Your task to perform on an android device: Search for razer deathadder on walmart, select the first entry, add it to the cart, then select checkout. Image 0: 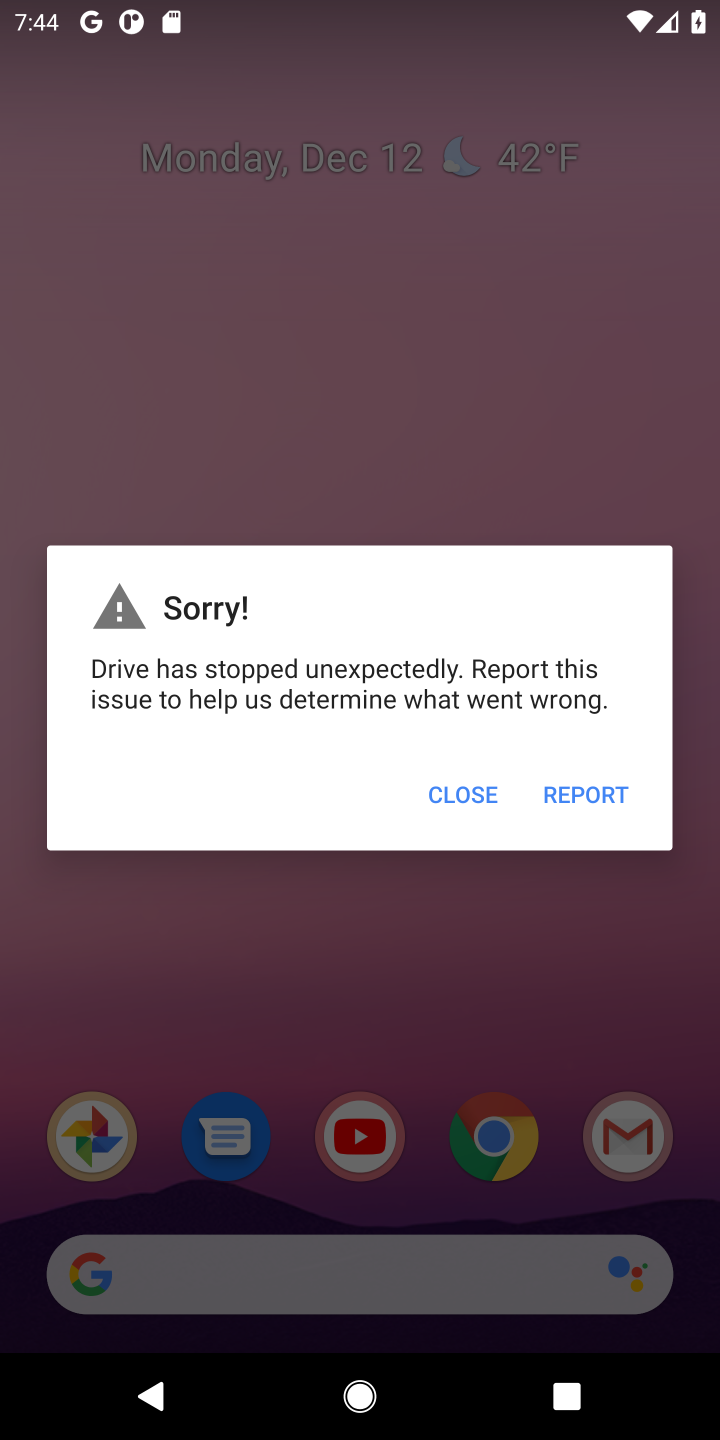
Step 0: press home button
Your task to perform on an android device: Search for razer deathadder on walmart, select the first entry, add it to the cart, then select checkout. Image 1: 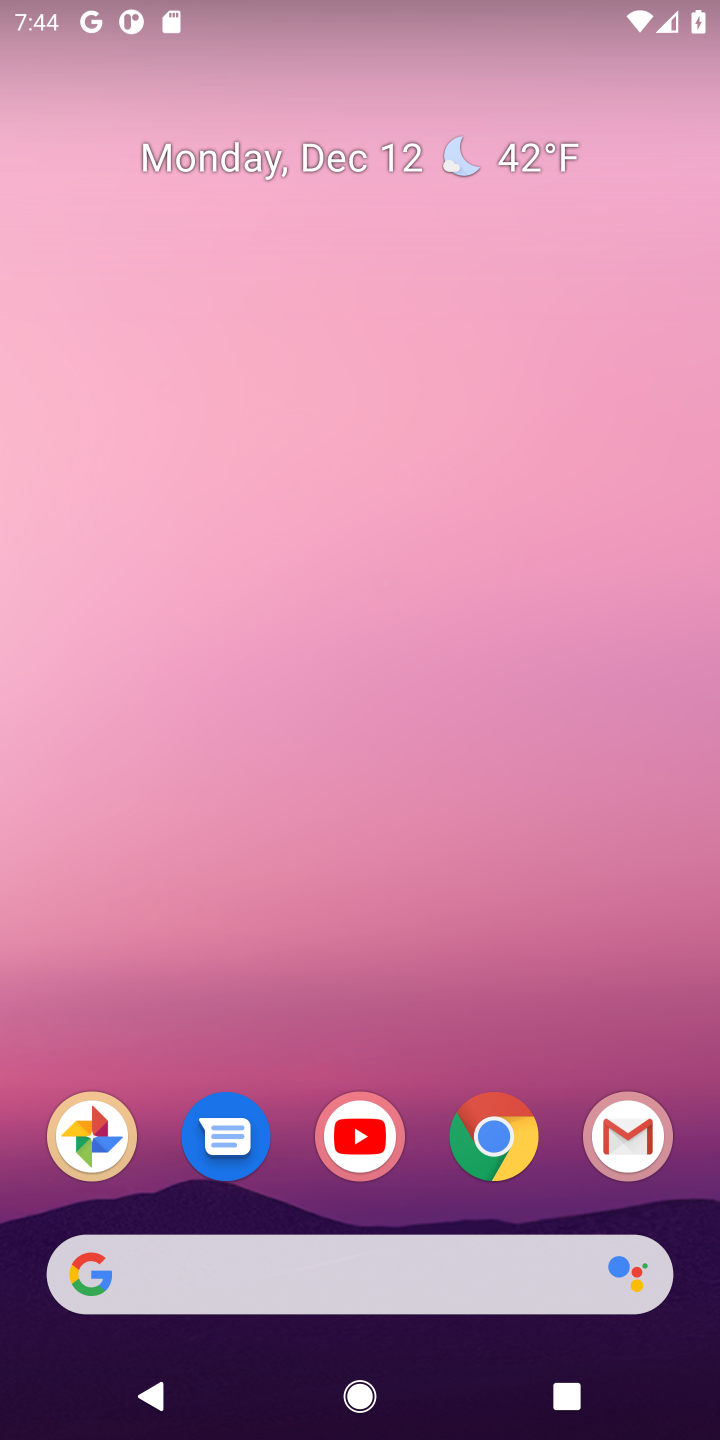
Step 1: click (487, 1155)
Your task to perform on an android device: Search for razer deathadder on walmart, select the first entry, add it to the cart, then select checkout. Image 2: 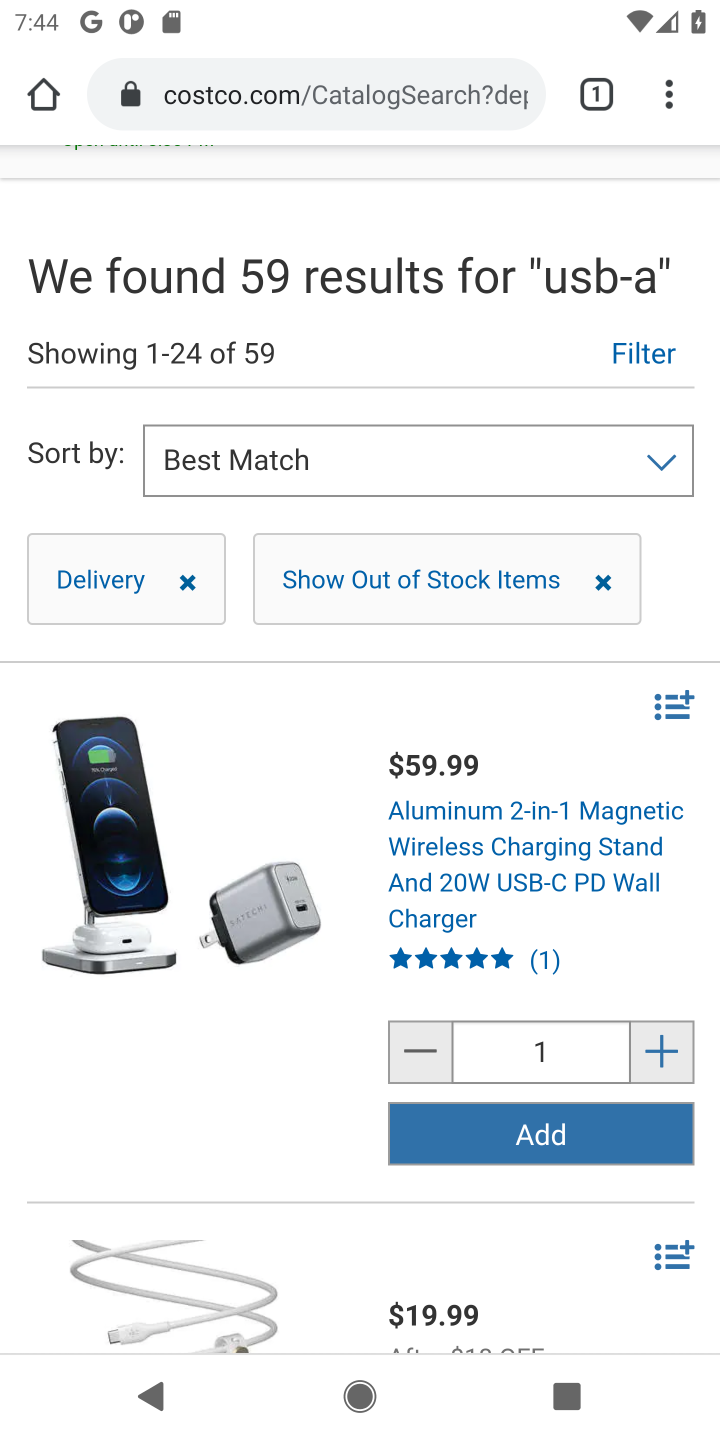
Step 2: click (211, 86)
Your task to perform on an android device: Search for razer deathadder on walmart, select the first entry, add it to the cart, then select checkout. Image 3: 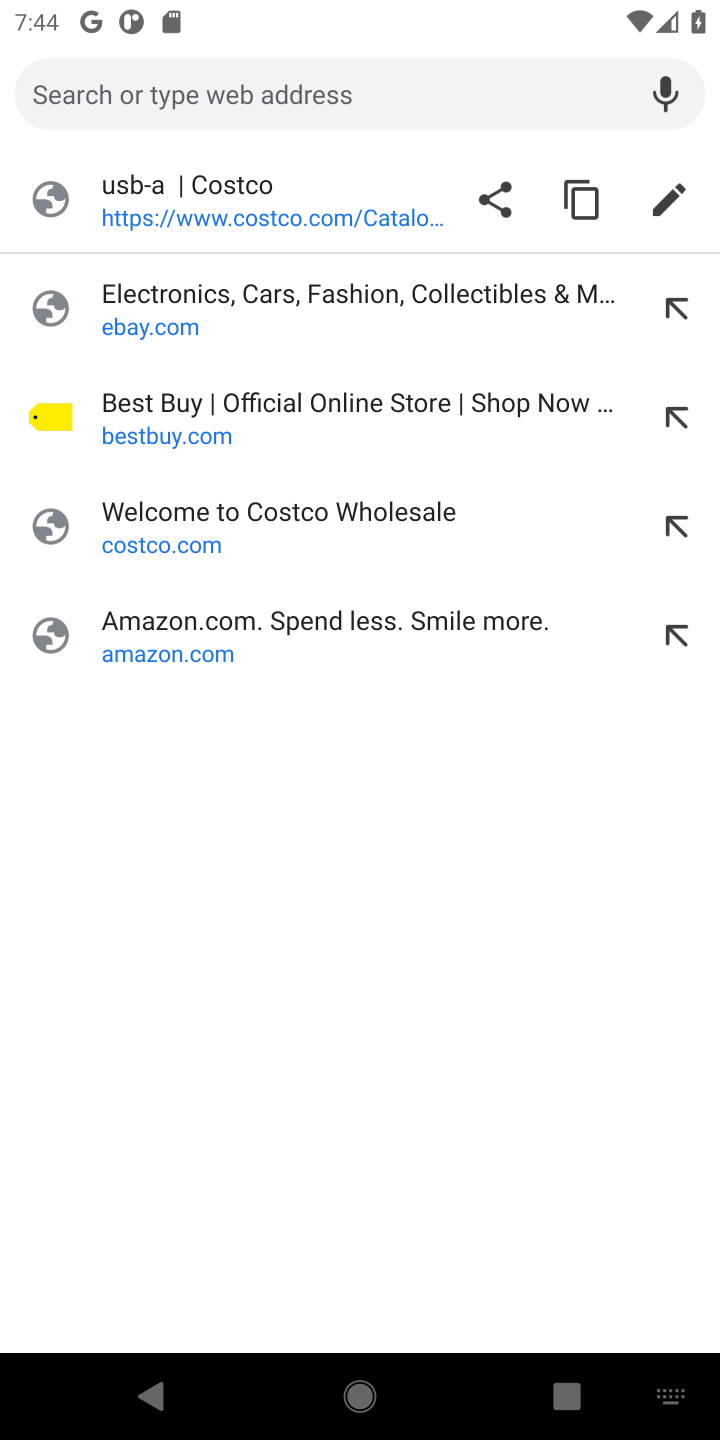
Step 3: type "walmart.com"
Your task to perform on an android device: Search for razer deathadder on walmart, select the first entry, add it to the cart, then select checkout. Image 4: 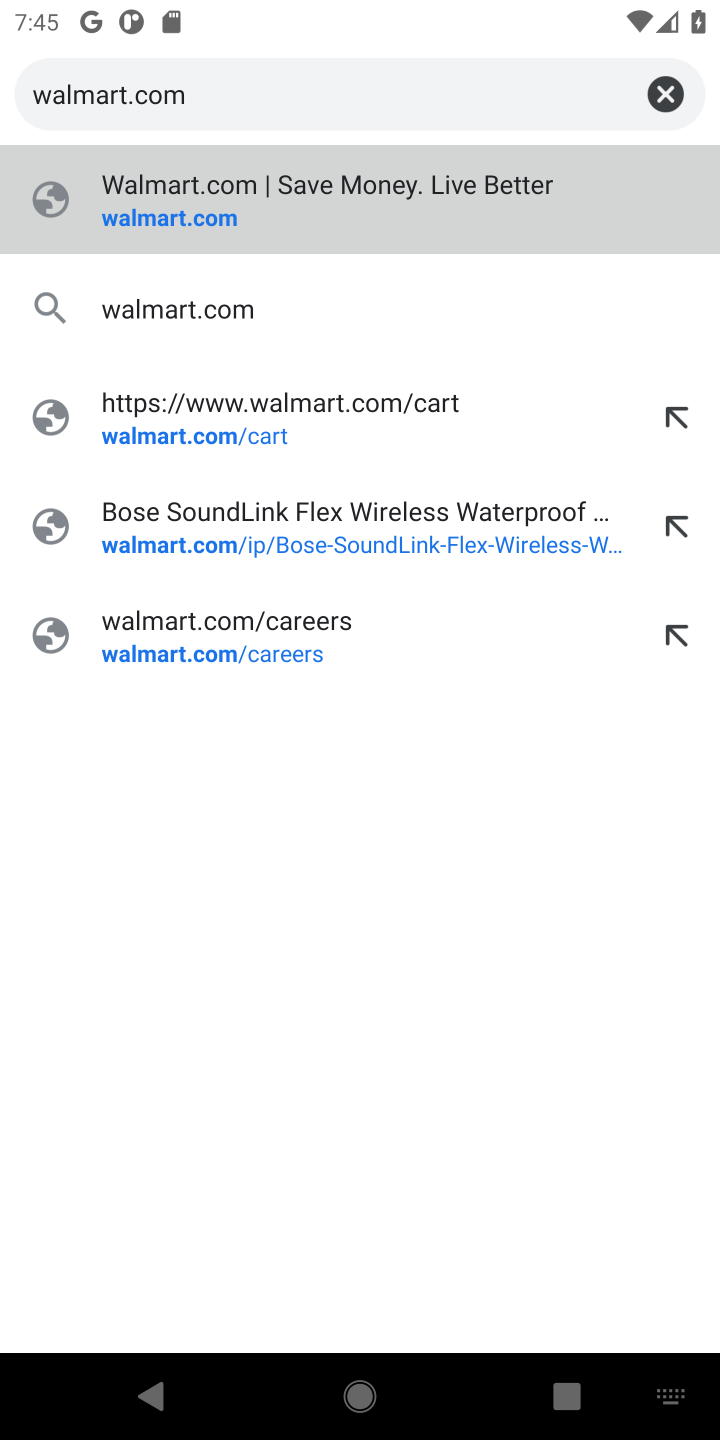
Step 4: click (149, 218)
Your task to perform on an android device: Search for razer deathadder on walmart, select the first entry, add it to the cart, then select checkout. Image 5: 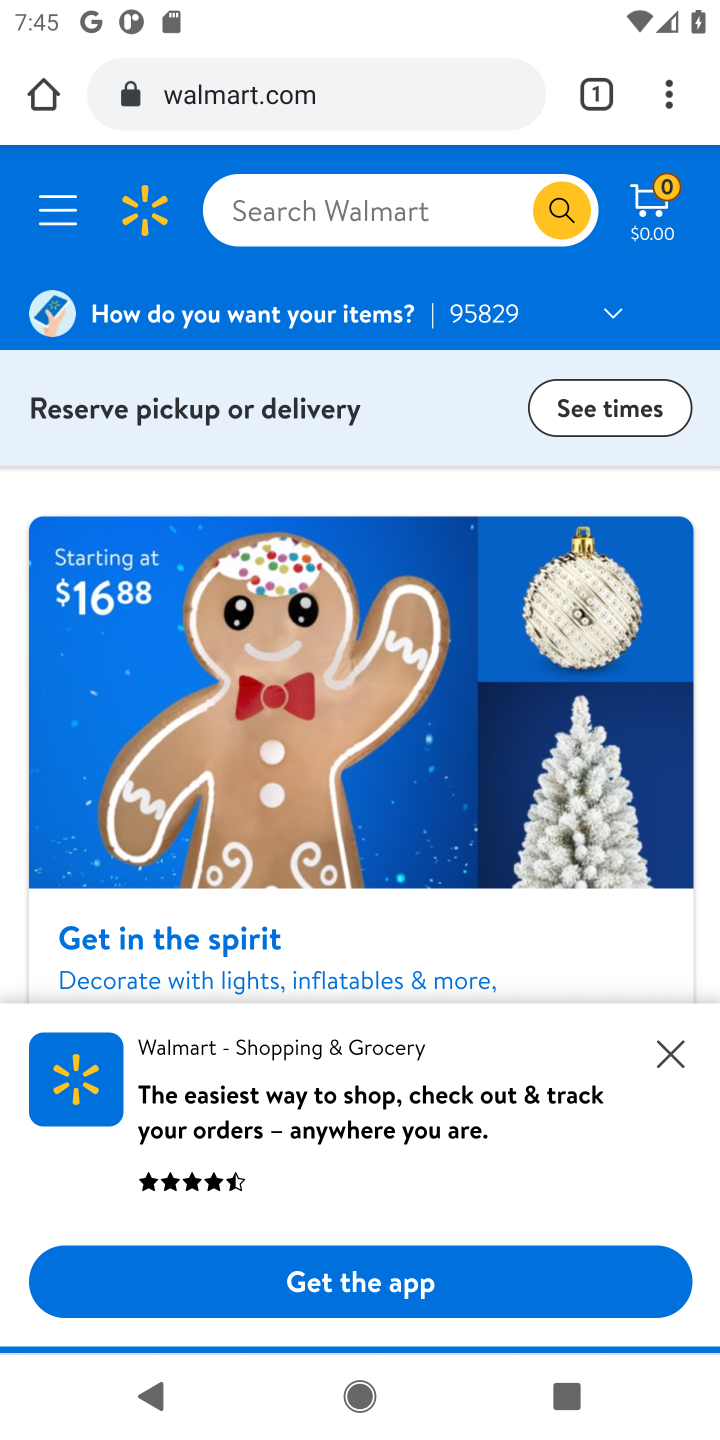
Step 5: click (271, 210)
Your task to perform on an android device: Search for razer deathadder on walmart, select the first entry, add it to the cart, then select checkout. Image 6: 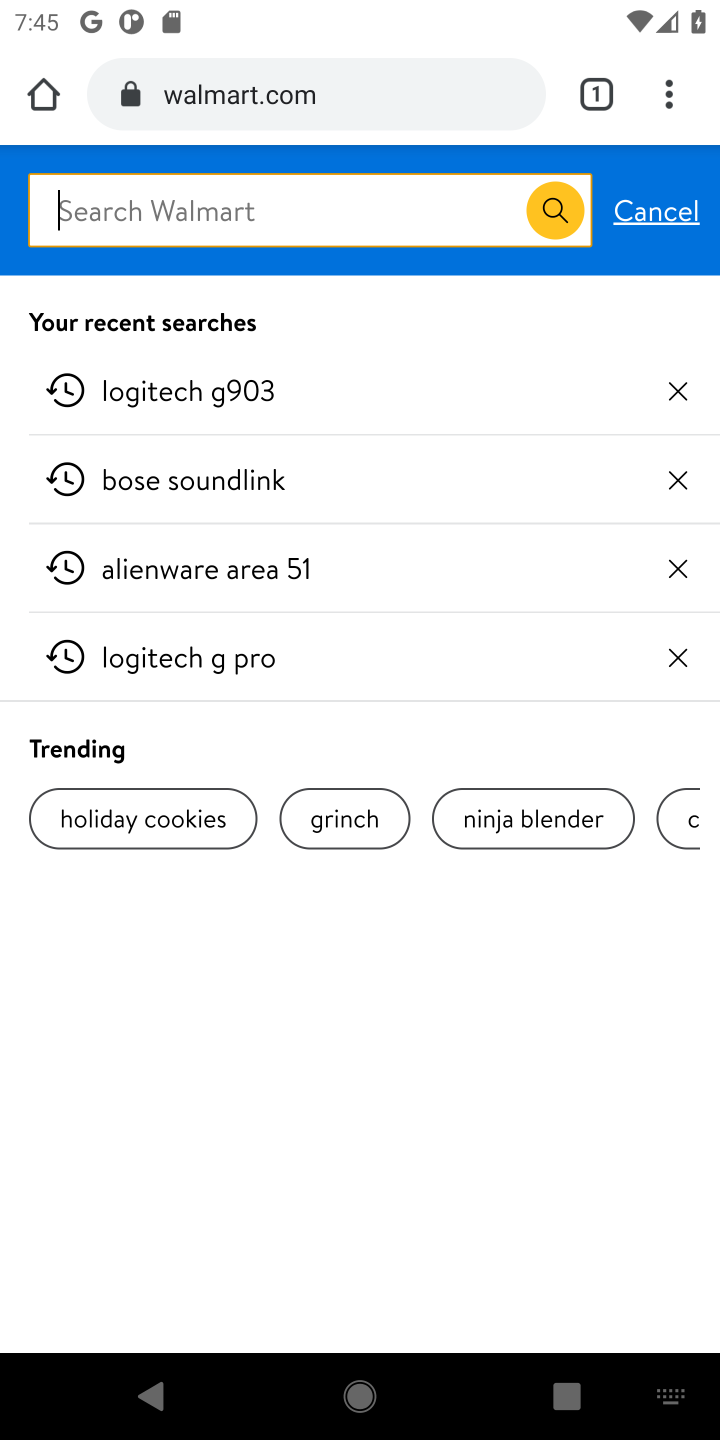
Step 6: type "razer deathadder "
Your task to perform on an android device: Search for razer deathadder on walmart, select the first entry, add it to the cart, then select checkout. Image 7: 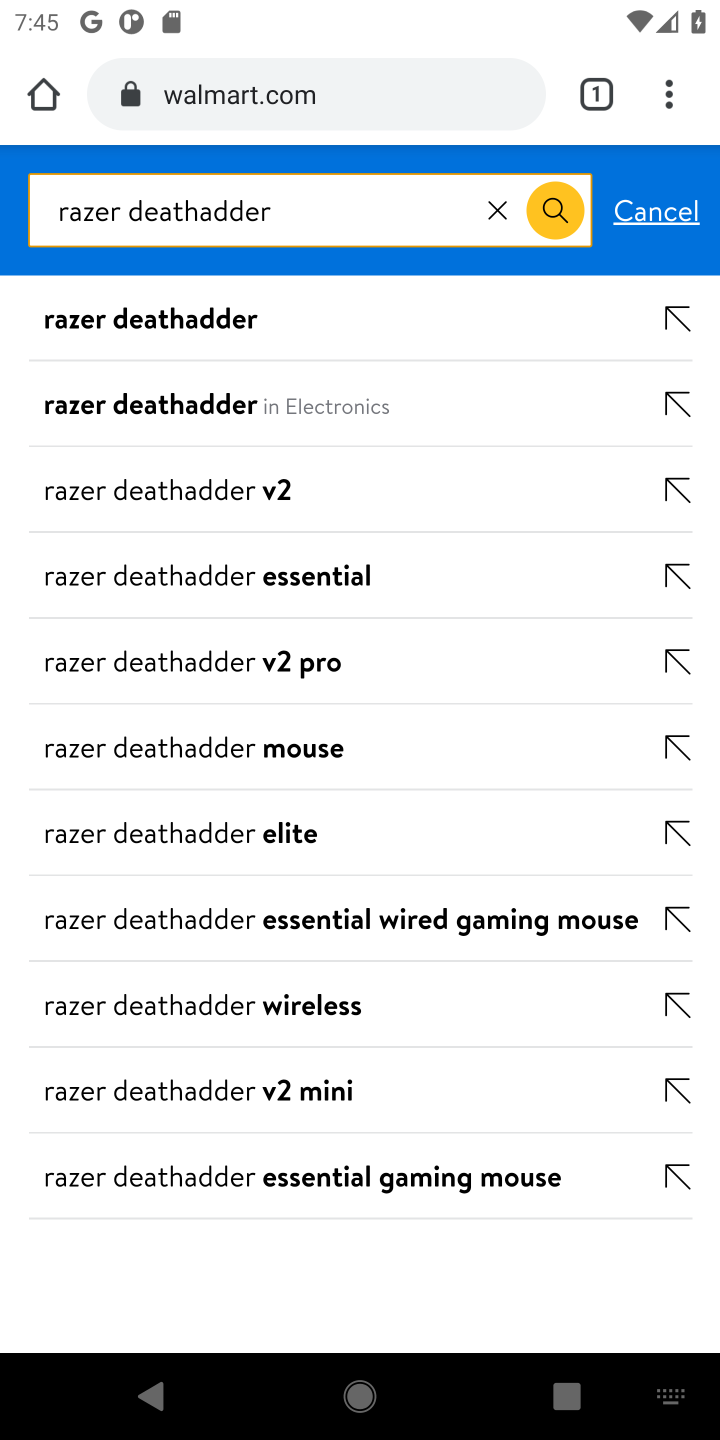
Step 7: click (195, 338)
Your task to perform on an android device: Search for razer deathadder on walmart, select the first entry, add it to the cart, then select checkout. Image 8: 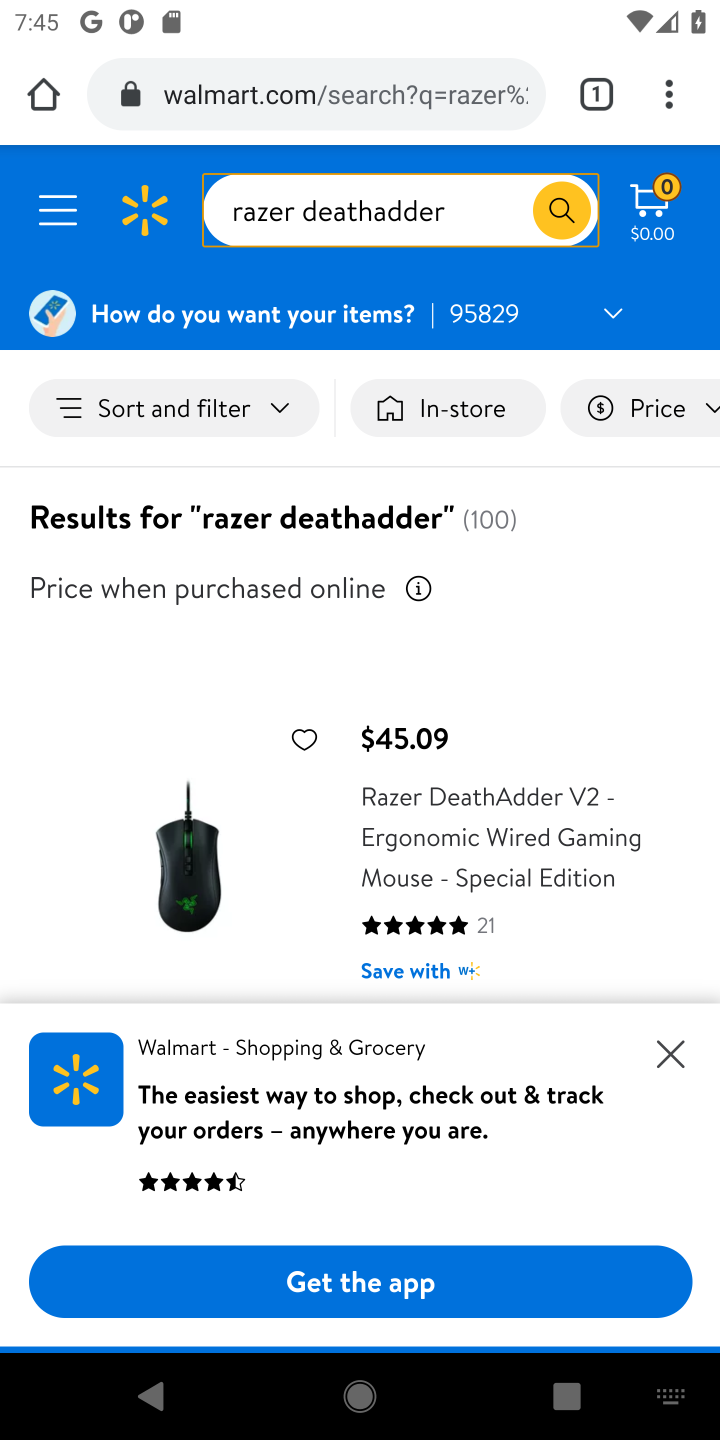
Step 8: drag from (311, 871) to (316, 446)
Your task to perform on an android device: Search for razer deathadder on walmart, select the first entry, add it to the cart, then select checkout. Image 9: 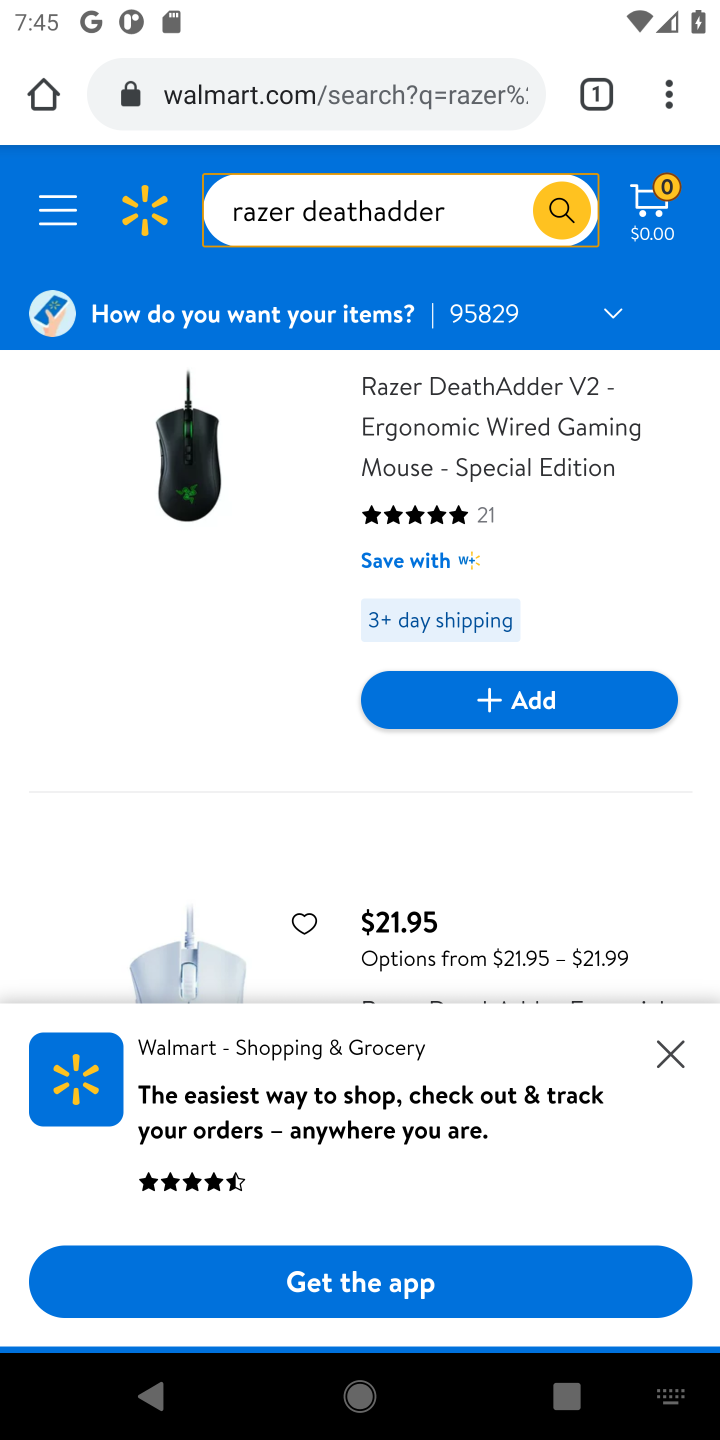
Step 9: click (540, 701)
Your task to perform on an android device: Search for razer deathadder on walmart, select the first entry, add it to the cart, then select checkout. Image 10: 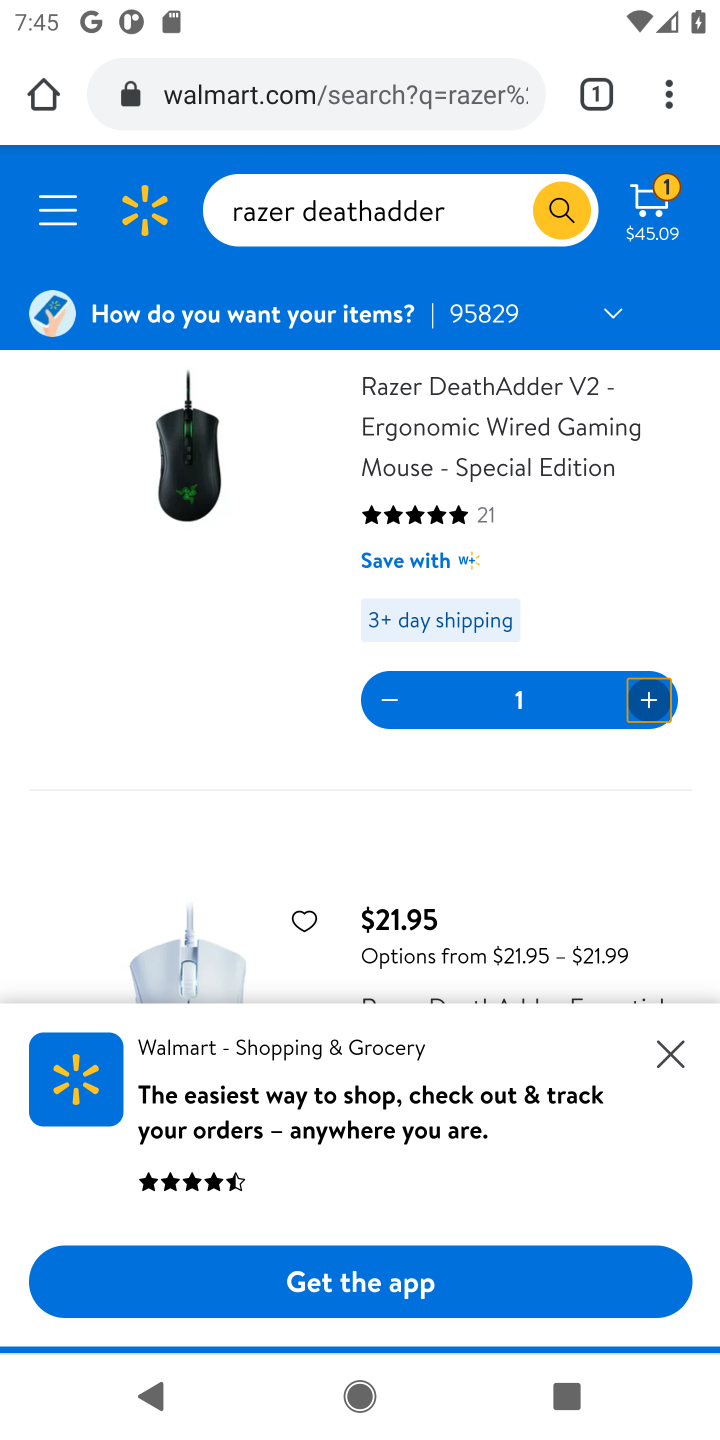
Step 10: click (656, 224)
Your task to perform on an android device: Search for razer deathadder on walmart, select the first entry, add it to the cart, then select checkout. Image 11: 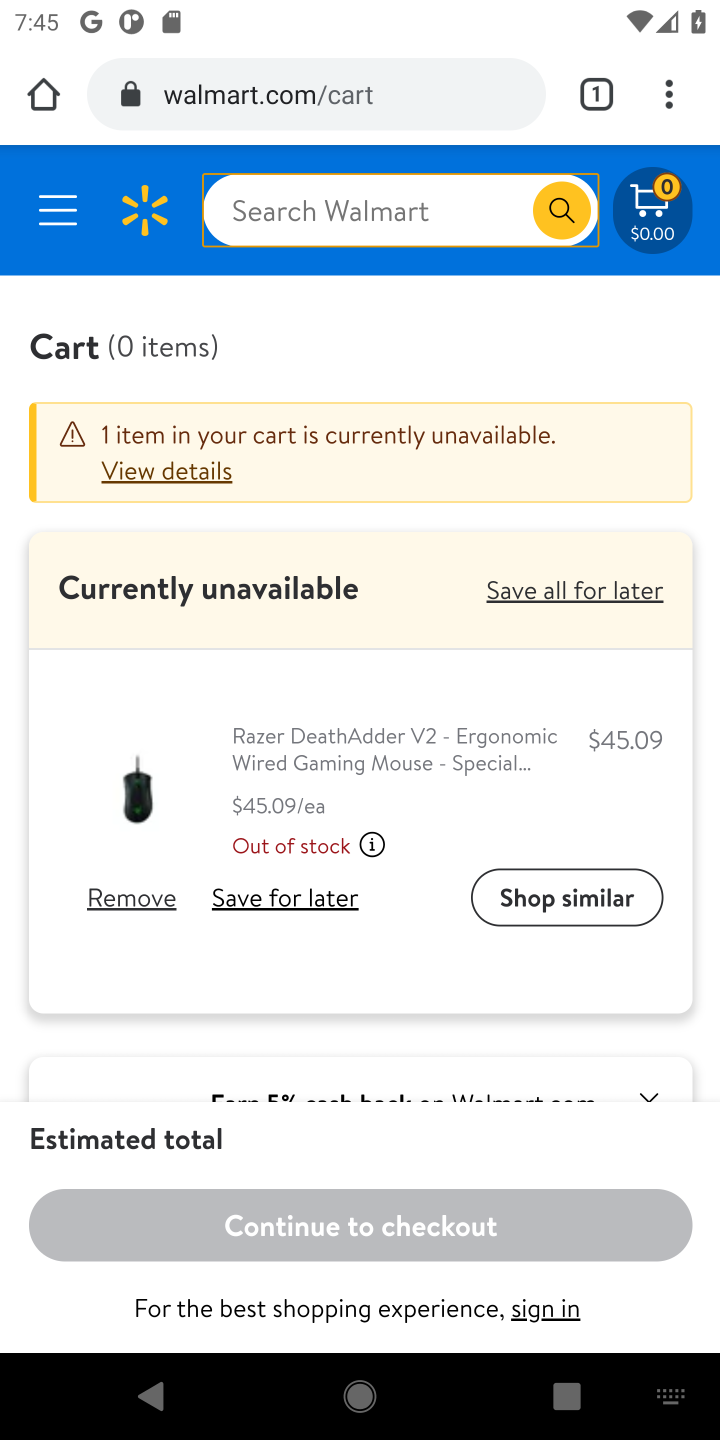
Step 11: click (316, 219)
Your task to perform on an android device: Search for razer deathadder on walmart, select the first entry, add it to the cart, then select checkout. Image 12: 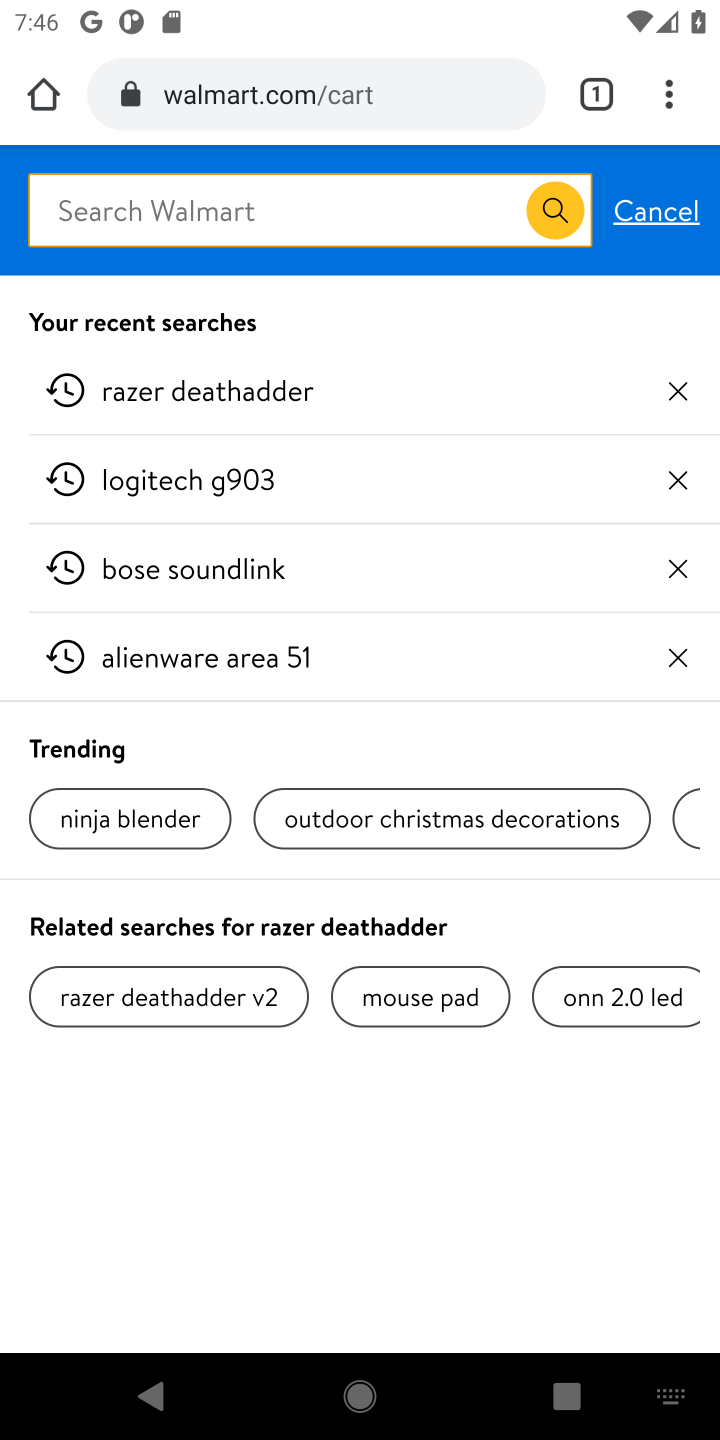
Step 12: click (225, 381)
Your task to perform on an android device: Search for razer deathadder on walmart, select the first entry, add it to the cart, then select checkout. Image 13: 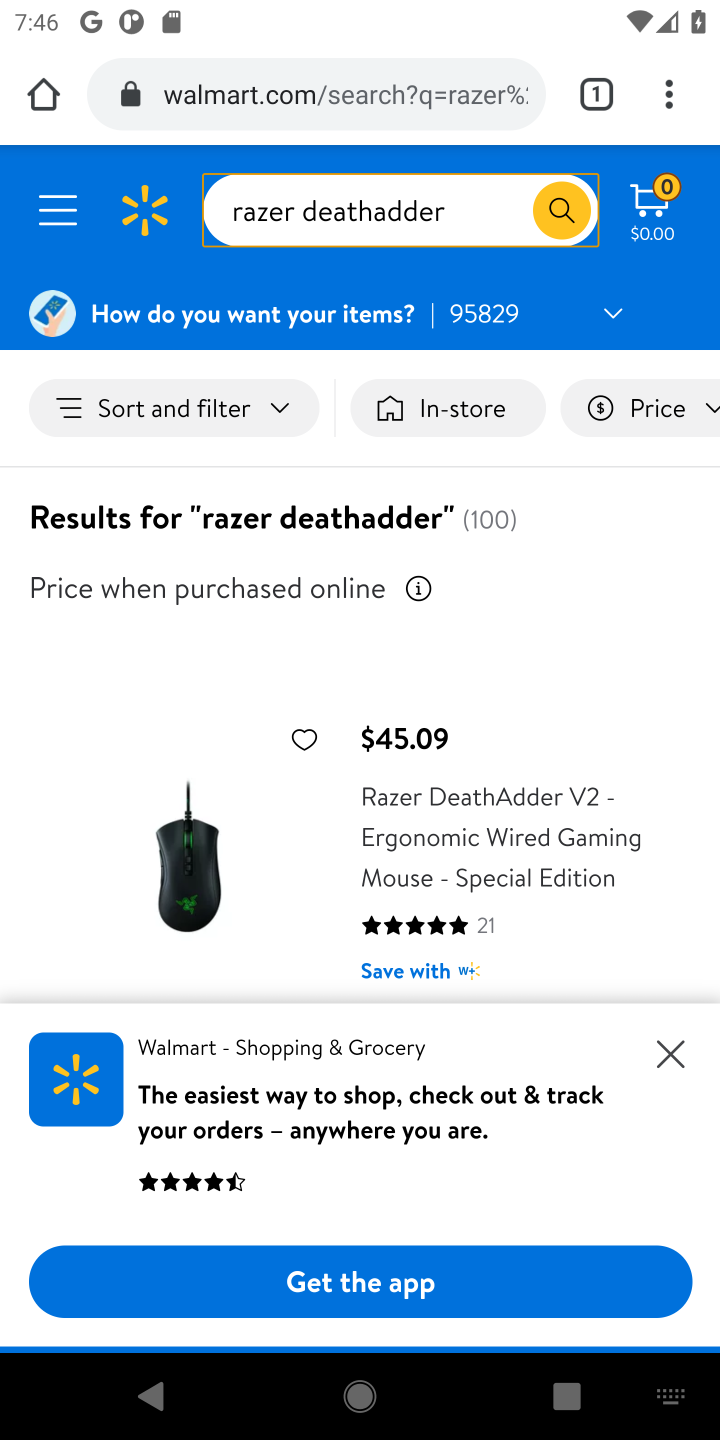
Step 13: task complete